Your task to perform on an android device: Go to Reddit.com Image 0: 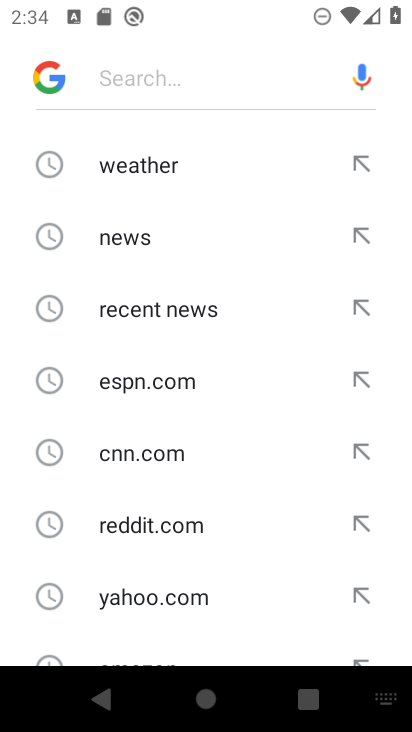
Step 0: type "Reddit.com"
Your task to perform on an android device: Go to Reddit.com Image 1: 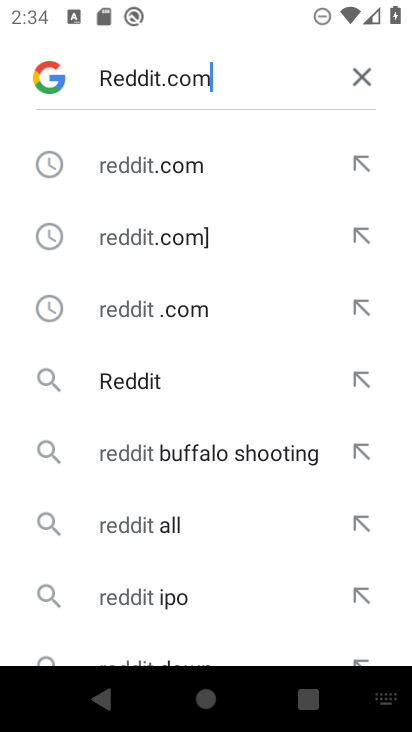
Step 1: type ""
Your task to perform on an android device: Go to Reddit.com Image 2: 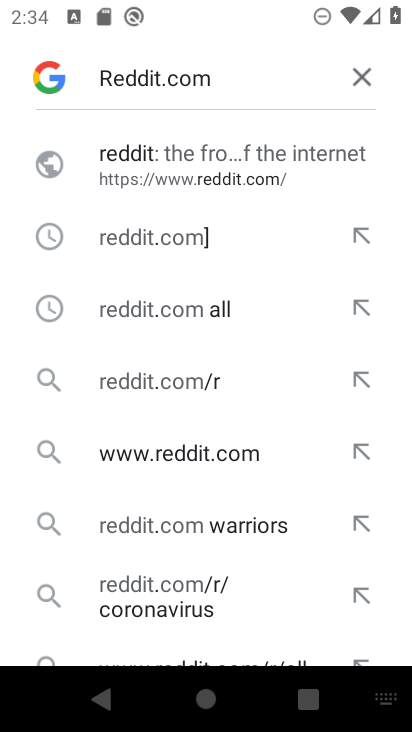
Step 2: click (231, 176)
Your task to perform on an android device: Go to Reddit.com Image 3: 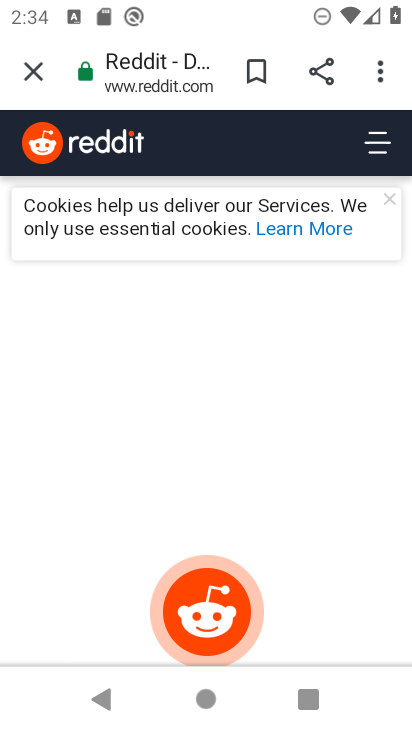
Step 3: task complete